Your task to perform on an android device: Check the weather Image 0: 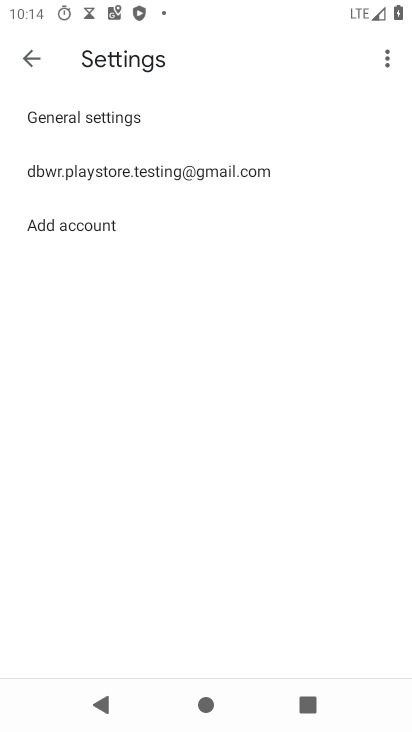
Step 0: press home button
Your task to perform on an android device: Check the weather Image 1: 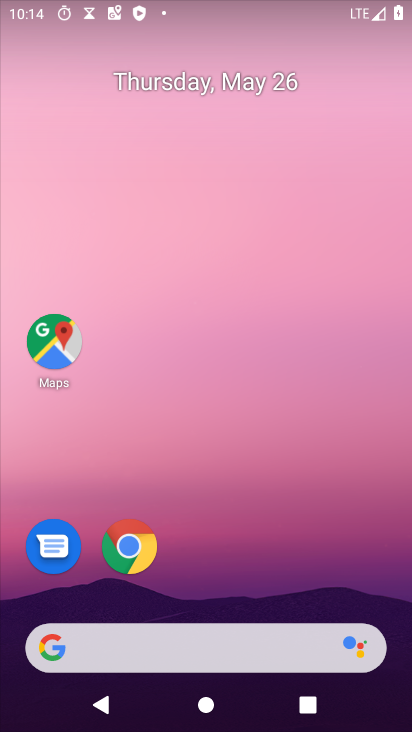
Step 1: drag from (387, 572) to (354, 119)
Your task to perform on an android device: Check the weather Image 2: 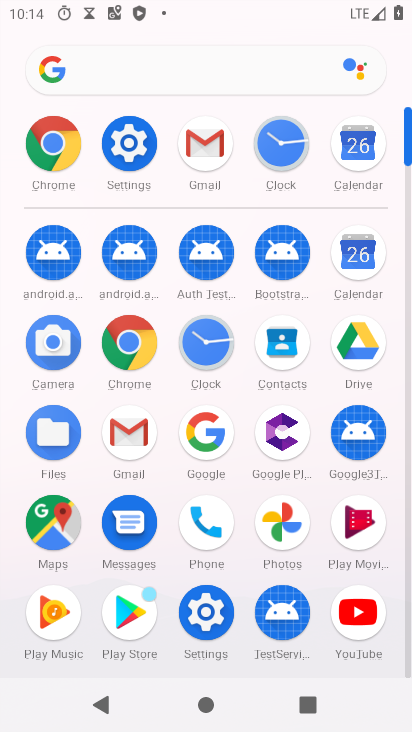
Step 2: click (112, 322)
Your task to perform on an android device: Check the weather Image 3: 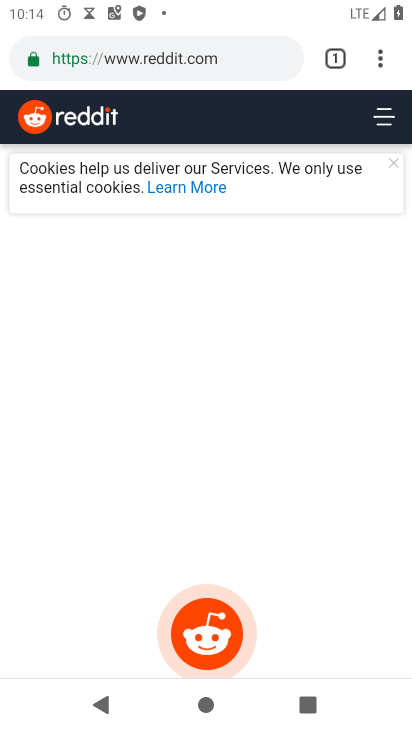
Step 3: click (133, 61)
Your task to perform on an android device: Check the weather Image 4: 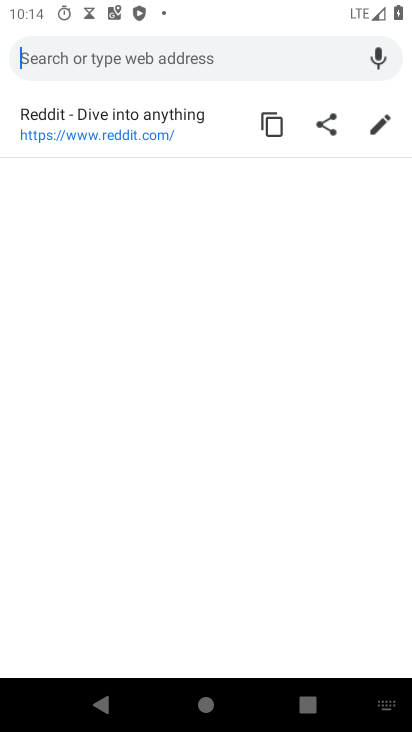
Step 4: type "check the weather "
Your task to perform on an android device: Check the weather Image 5: 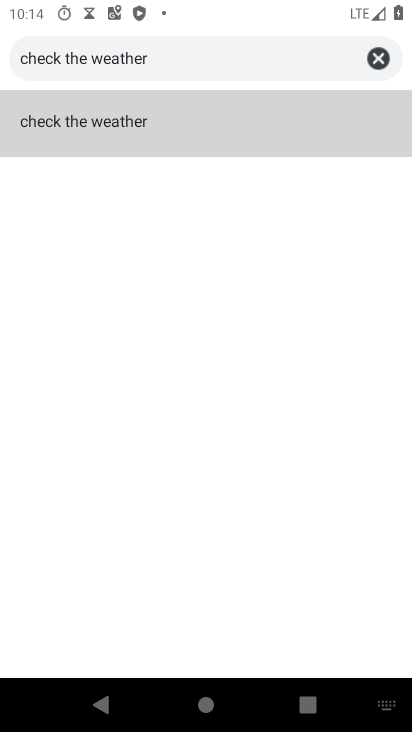
Step 5: click (130, 131)
Your task to perform on an android device: Check the weather Image 6: 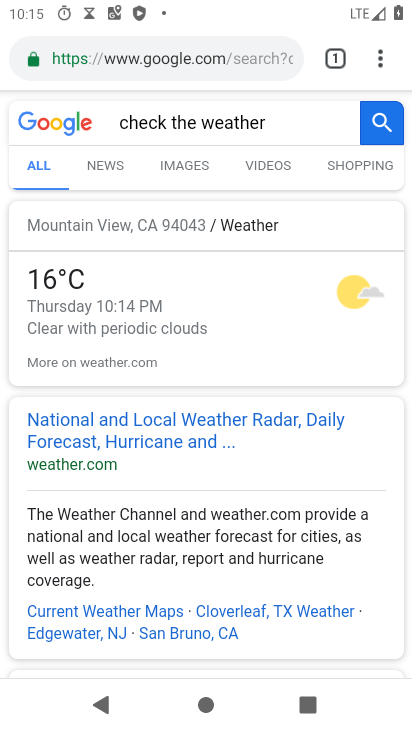
Step 6: task complete